Your task to perform on an android device: Go to settings Image 0: 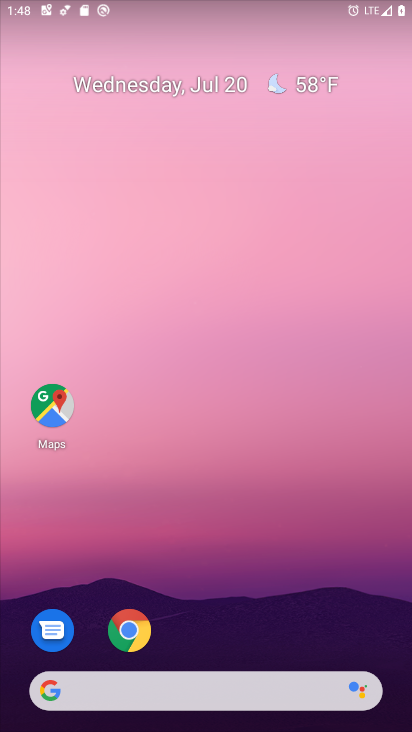
Step 0: drag from (257, 655) to (327, 55)
Your task to perform on an android device: Go to settings Image 1: 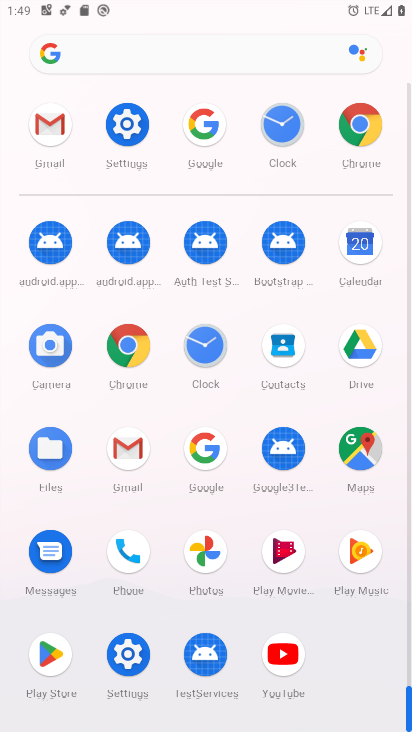
Step 1: click (128, 148)
Your task to perform on an android device: Go to settings Image 2: 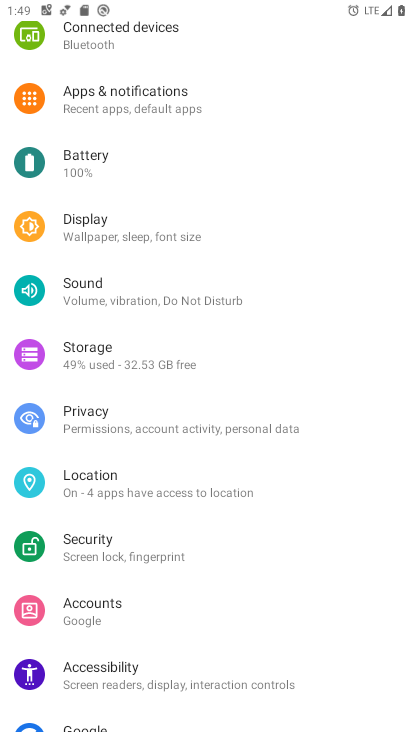
Step 2: task complete